Your task to perform on an android device: Open sound settings Image 0: 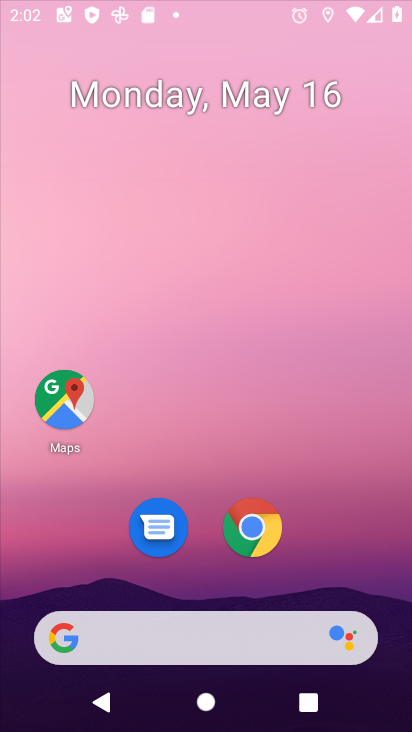
Step 0: drag from (355, 548) to (331, 100)
Your task to perform on an android device: Open sound settings Image 1: 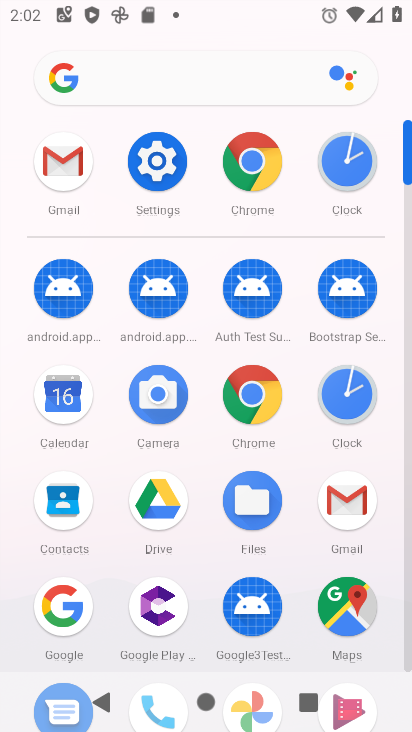
Step 1: click (188, 171)
Your task to perform on an android device: Open sound settings Image 2: 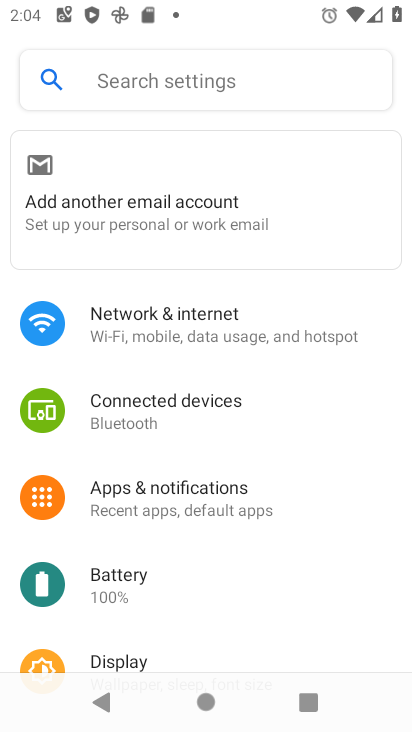
Step 2: drag from (165, 570) to (202, 305)
Your task to perform on an android device: Open sound settings Image 3: 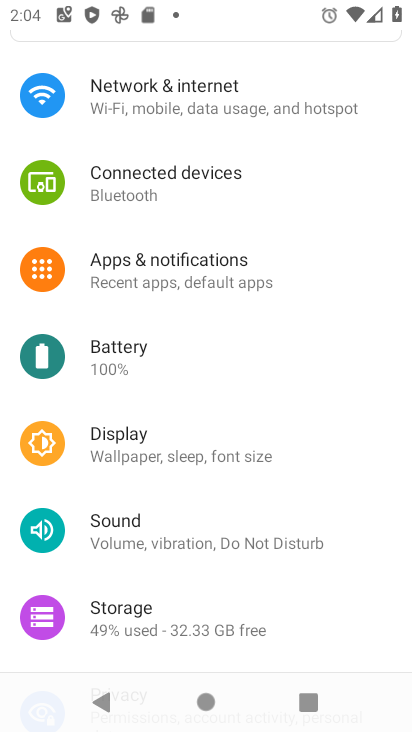
Step 3: click (191, 552)
Your task to perform on an android device: Open sound settings Image 4: 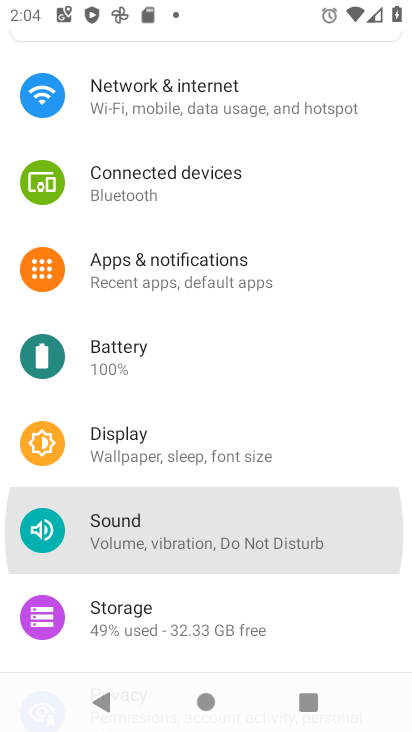
Step 4: drag from (191, 552) to (194, 399)
Your task to perform on an android device: Open sound settings Image 5: 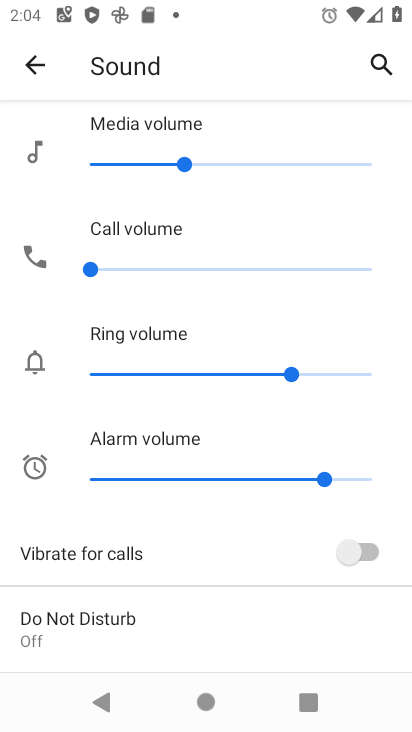
Step 5: press home button
Your task to perform on an android device: Open sound settings Image 6: 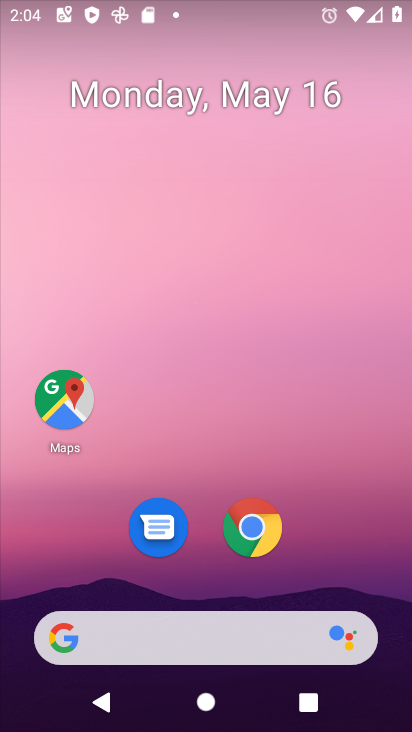
Step 6: drag from (339, 547) to (356, 101)
Your task to perform on an android device: Open sound settings Image 7: 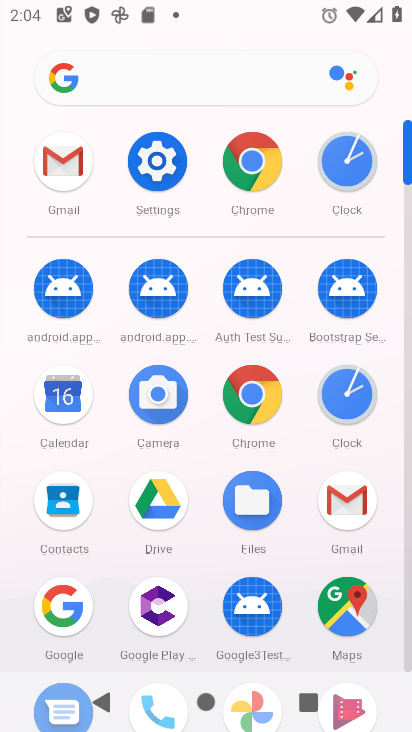
Step 7: click (177, 187)
Your task to perform on an android device: Open sound settings Image 8: 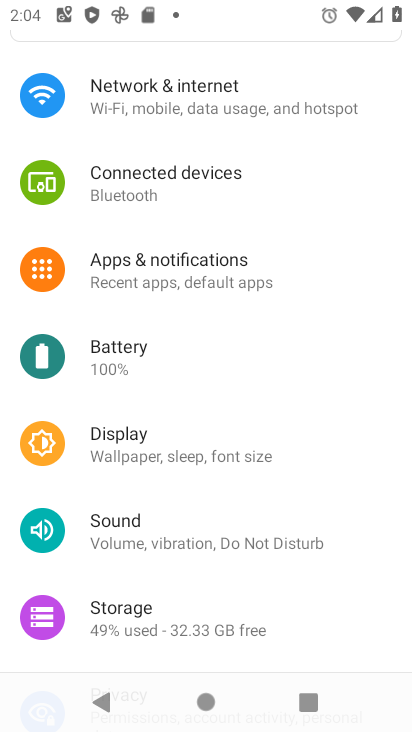
Step 8: click (213, 538)
Your task to perform on an android device: Open sound settings Image 9: 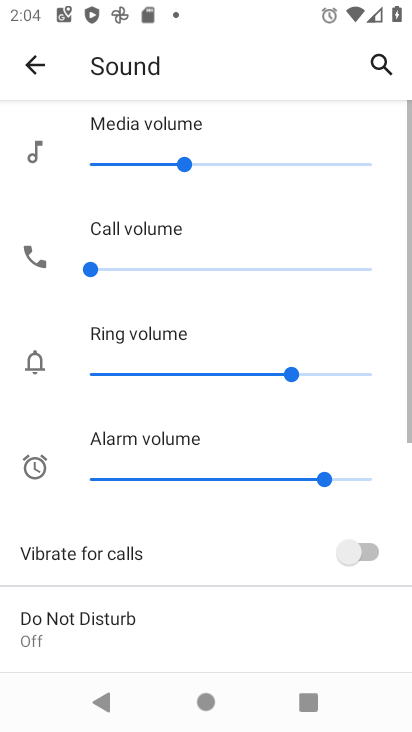
Step 9: task complete